Your task to perform on an android device: Show me popular games on the Play Store Image 0: 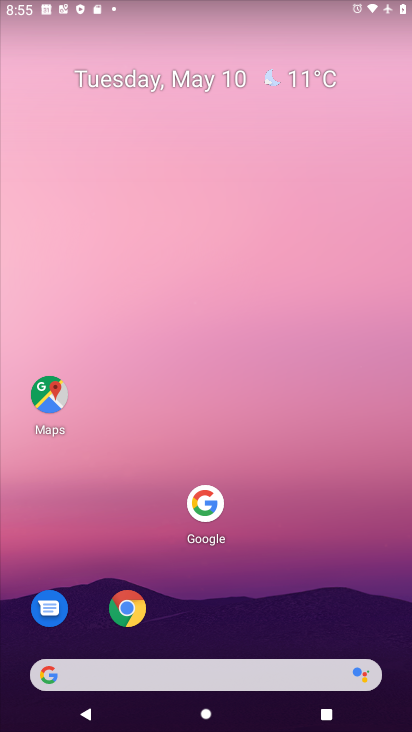
Step 0: drag from (141, 677) to (296, 183)
Your task to perform on an android device: Show me popular games on the Play Store Image 1: 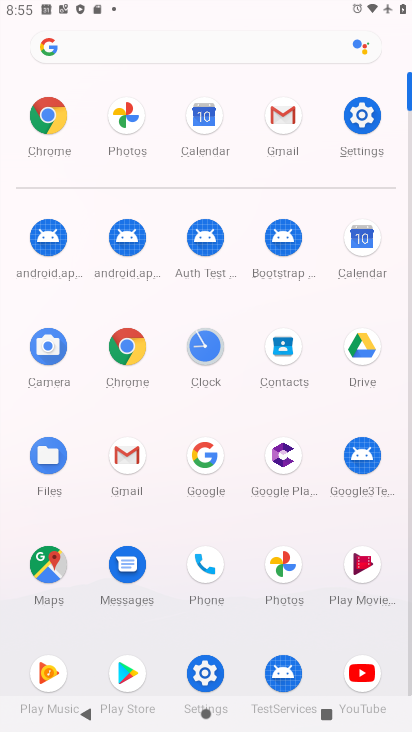
Step 1: click (128, 682)
Your task to perform on an android device: Show me popular games on the Play Store Image 2: 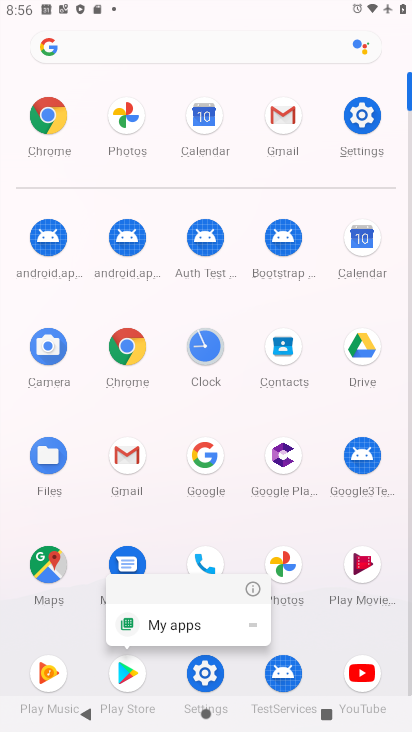
Step 2: click (125, 678)
Your task to perform on an android device: Show me popular games on the Play Store Image 3: 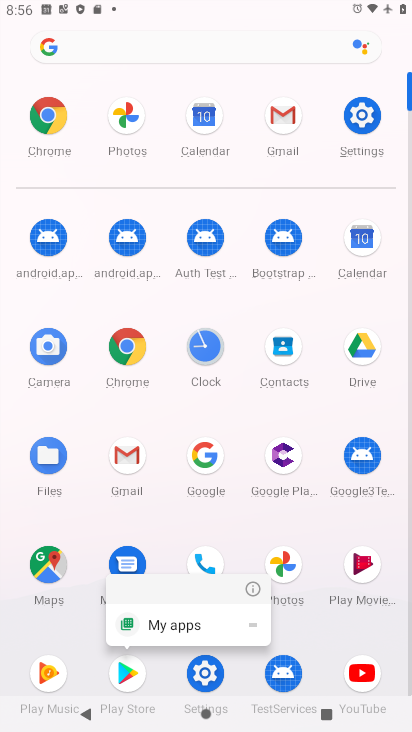
Step 3: click (124, 671)
Your task to perform on an android device: Show me popular games on the Play Store Image 4: 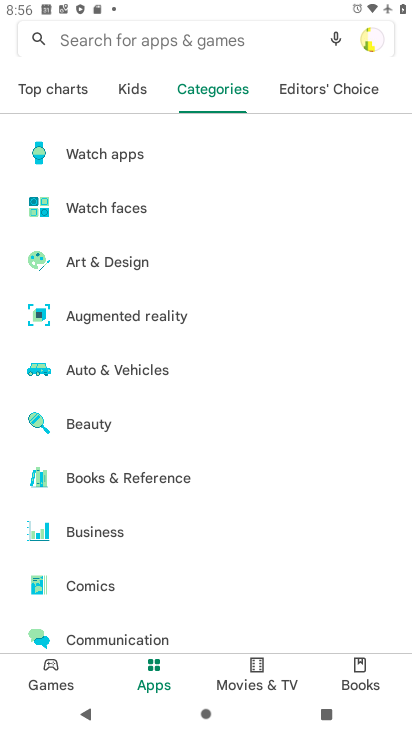
Step 4: click (54, 667)
Your task to perform on an android device: Show me popular games on the Play Store Image 5: 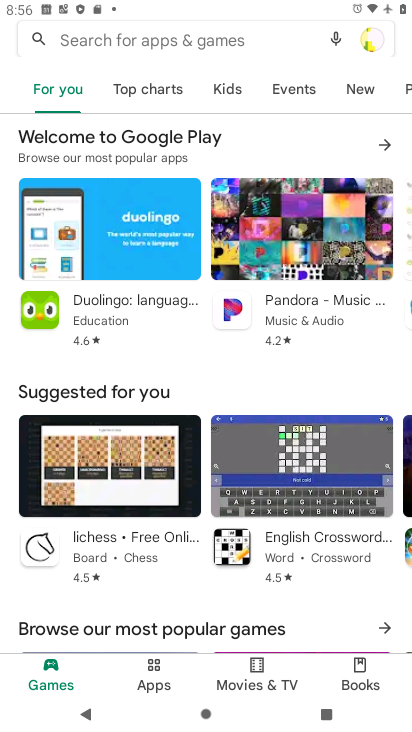
Step 5: click (149, 633)
Your task to perform on an android device: Show me popular games on the Play Store Image 6: 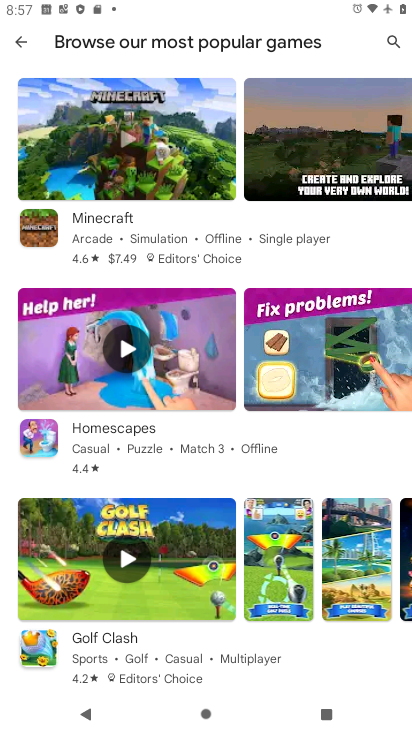
Step 6: task complete